Your task to perform on an android device: Go to battery settings Image 0: 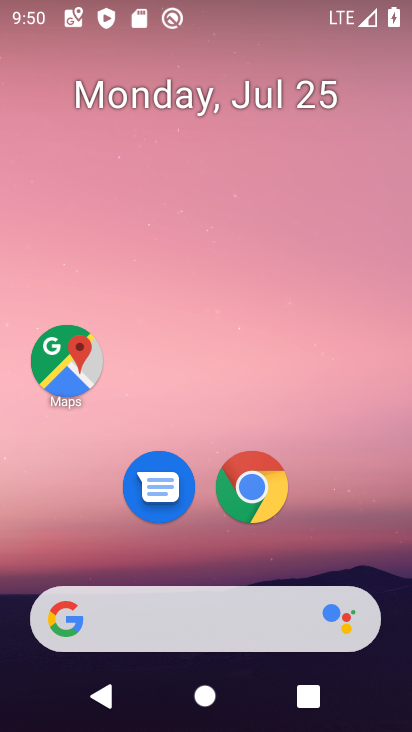
Step 0: drag from (191, 542) to (287, 7)
Your task to perform on an android device: Go to battery settings Image 1: 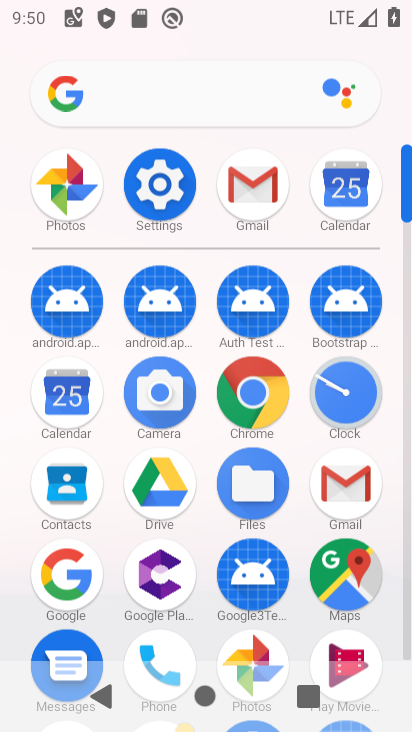
Step 1: click (173, 172)
Your task to perform on an android device: Go to battery settings Image 2: 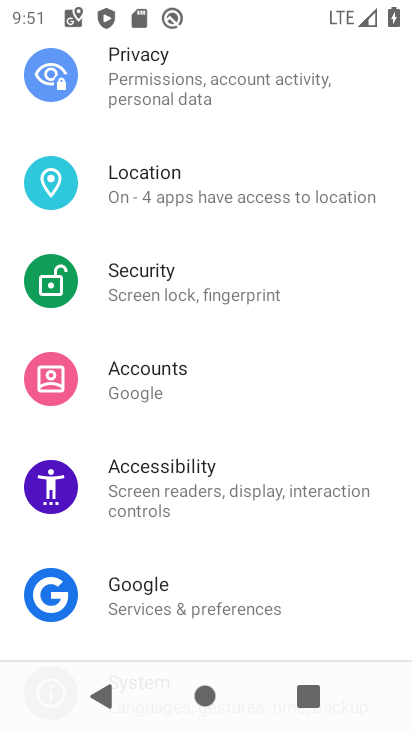
Step 2: drag from (244, 133) to (221, 440)
Your task to perform on an android device: Go to battery settings Image 3: 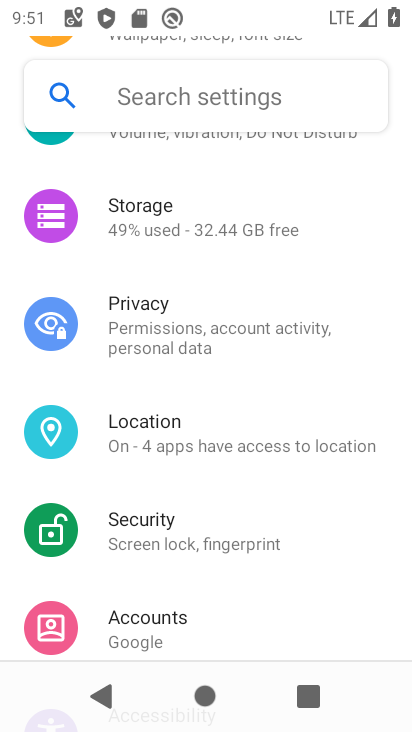
Step 3: drag from (235, 234) to (187, 568)
Your task to perform on an android device: Go to battery settings Image 4: 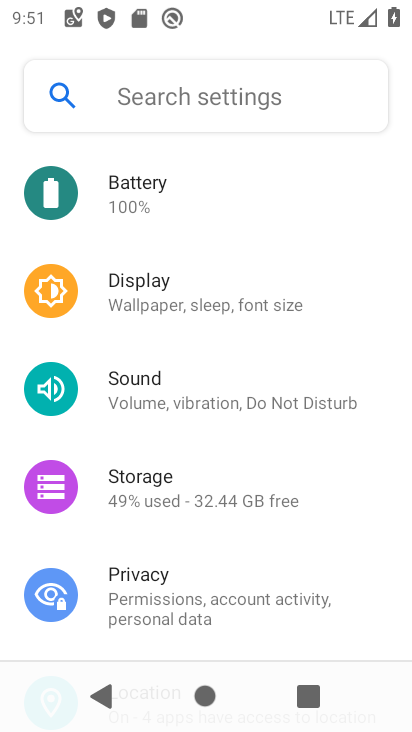
Step 4: click (163, 195)
Your task to perform on an android device: Go to battery settings Image 5: 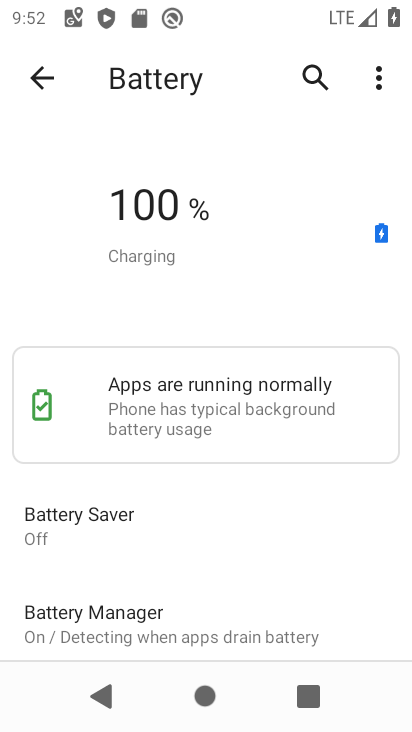
Step 5: task complete